Your task to perform on an android device: How do I get to the nearest Sprint Store? Image 0: 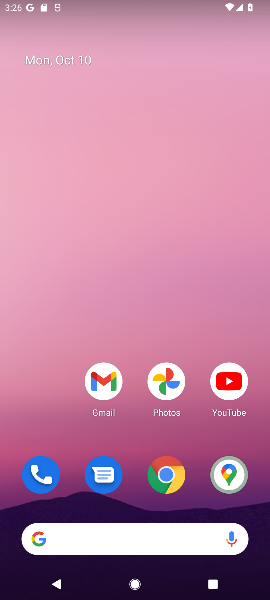
Step 0: click (163, 281)
Your task to perform on an android device: How do I get to the nearest Sprint Store? Image 1: 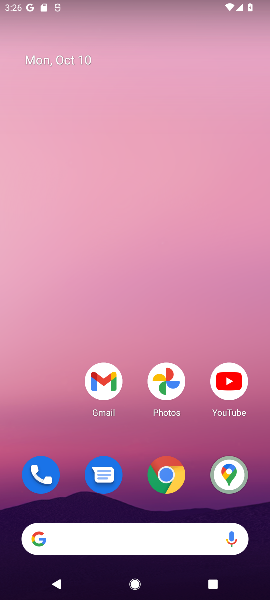
Step 1: click (59, 361)
Your task to perform on an android device: How do I get to the nearest Sprint Store? Image 2: 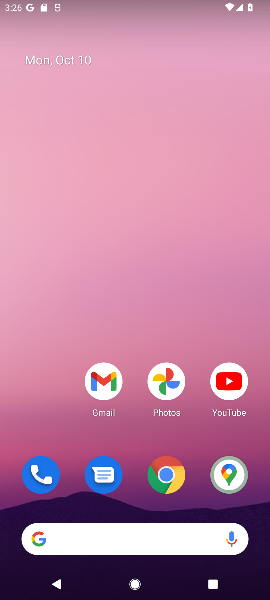
Step 2: drag from (145, 426) to (145, 171)
Your task to perform on an android device: How do I get to the nearest Sprint Store? Image 3: 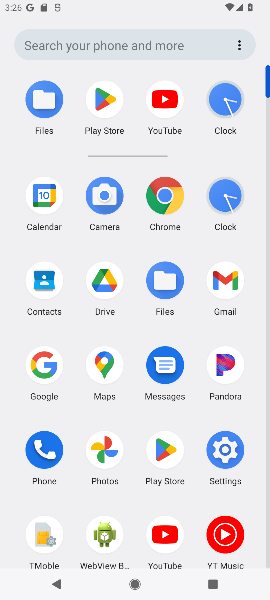
Step 3: click (43, 381)
Your task to perform on an android device: How do I get to the nearest Sprint Store? Image 4: 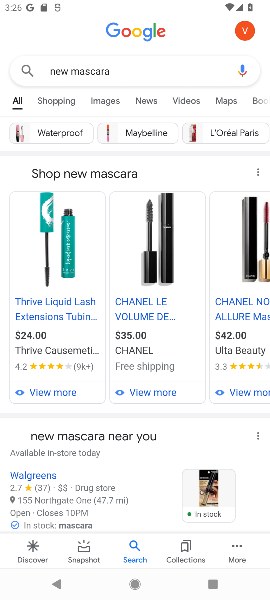
Step 4: click (194, 75)
Your task to perform on an android device: How do I get to the nearest Sprint Store? Image 5: 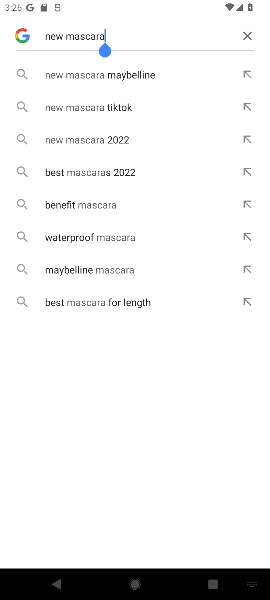
Step 5: click (247, 31)
Your task to perform on an android device: How do I get to the nearest Sprint Store? Image 6: 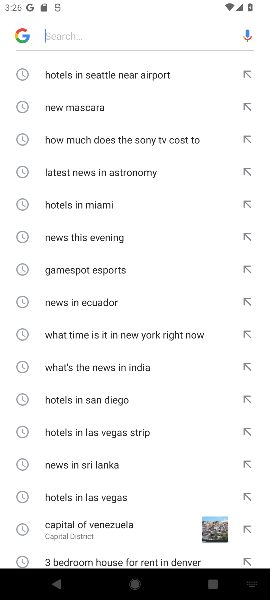
Step 6: type "nearest Sprint Store"
Your task to perform on an android device: How do I get to the nearest Sprint Store? Image 7: 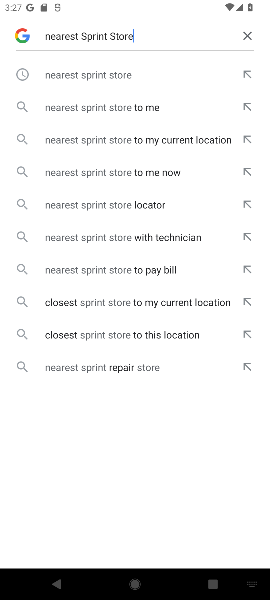
Step 7: click (124, 79)
Your task to perform on an android device: How do I get to the nearest Sprint Store? Image 8: 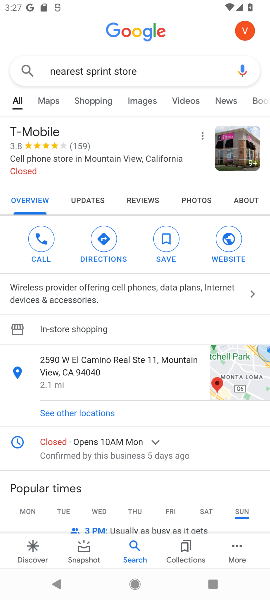
Step 8: click (95, 251)
Your task to perform on an android device: How do I get to the nearest Sprint Store? Image 9: 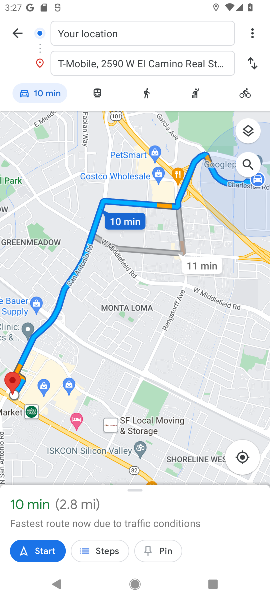
Step 9: task complete